Your task to perform on an android device: open sync settings in chrome Image 0: 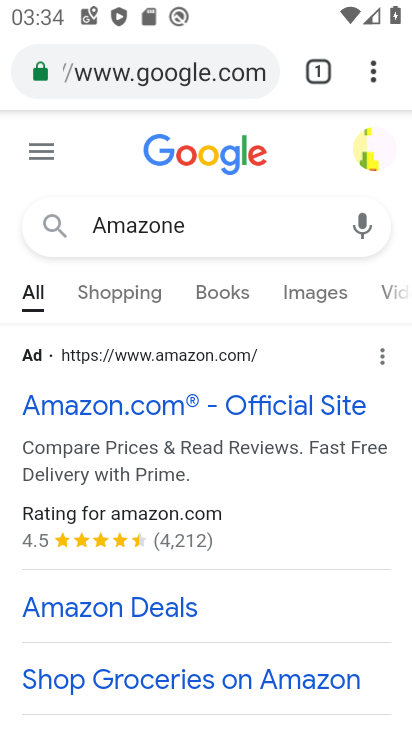
Step 0: press back button
Your task to perform on an android device: open sync settings in chrome Image 1: 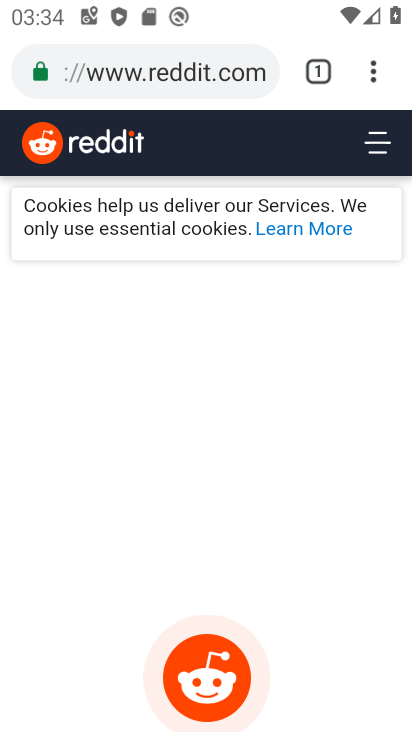
Step 1: press back button
Your task to perform on an android device: open sync settings in chrome Image 2: 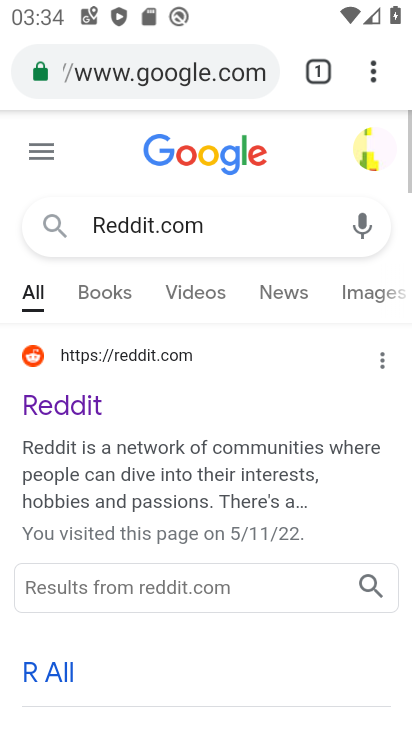
Step 2: press back button
Your task to perform on an android device: open sync settings in chrome Image 3: 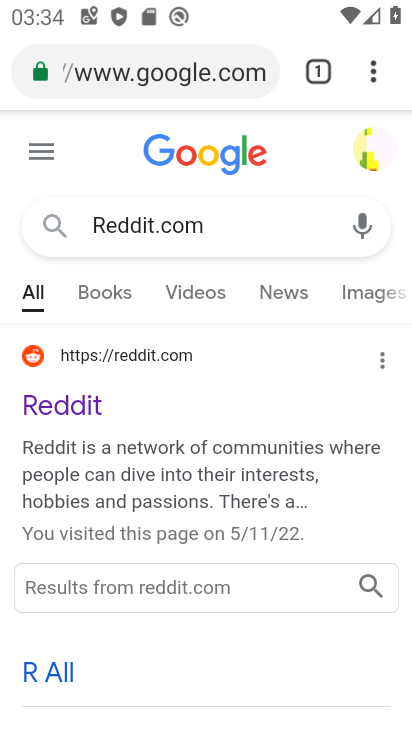
Step 3: press back button
Your task to perform on an android device: open sync settings in chrome Image 4: 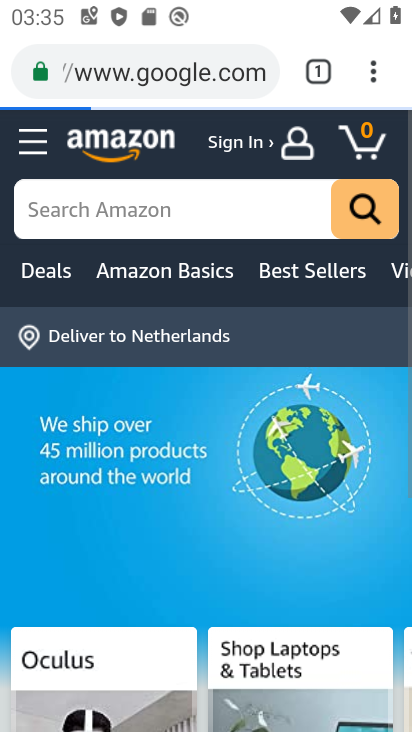
Step 4: press back button
Your task to perform on an android device: open sync settings in chrome Image 5: 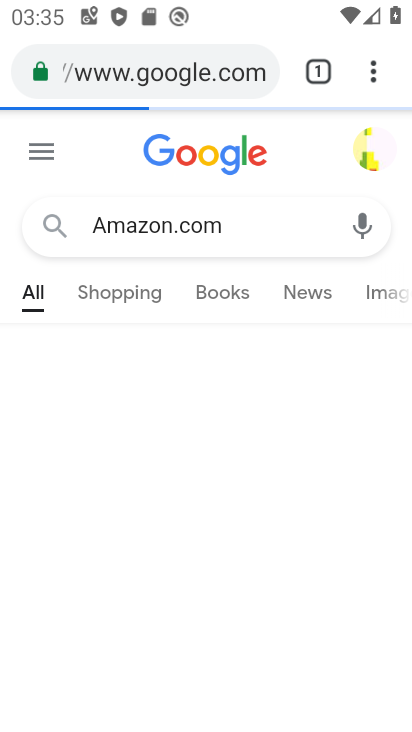
Step 5: press back button
Your task to perform on an android device: open sync settings in chrome Image 6: 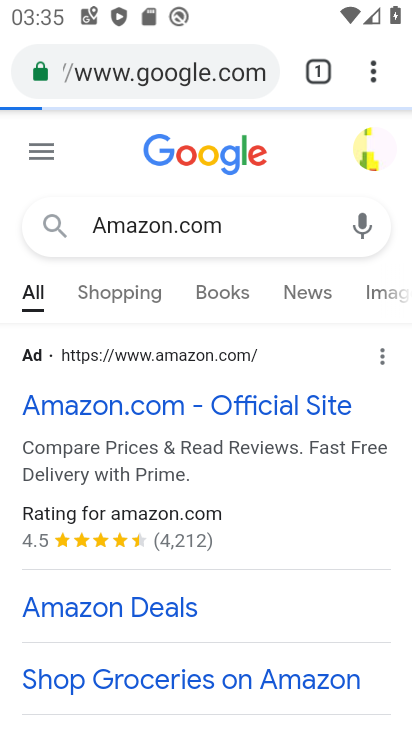
Step 6: press back button
Your task to perform on an android device: open sync settings in chrome Image 7: 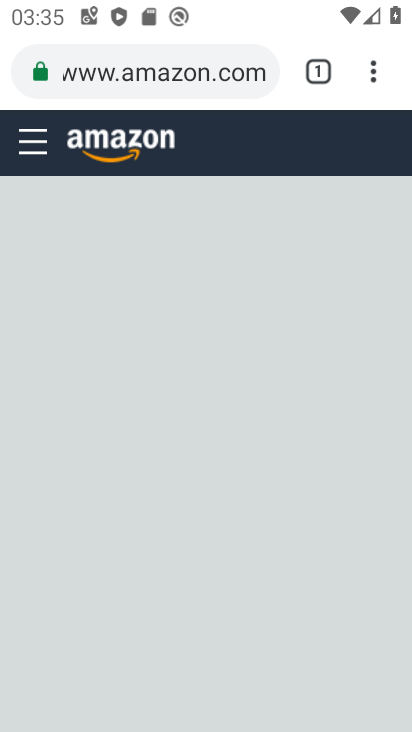
Step 7: press back button
Your task to perform on an android device: open sync settings in chrome Image 8: 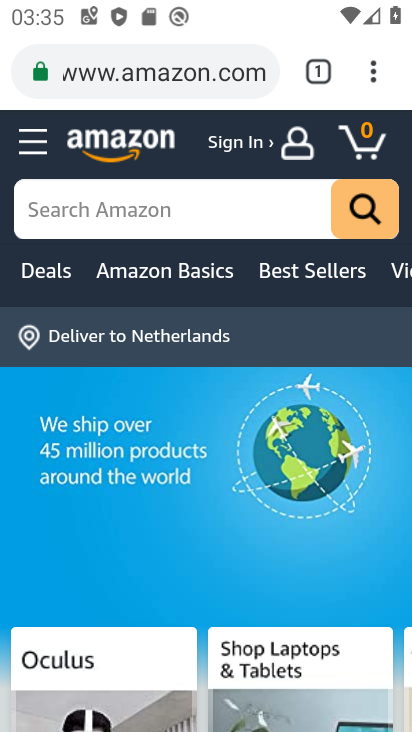
Step 8: press back button
Your task to perform on an android device: open sync settings in chrome Image 9: 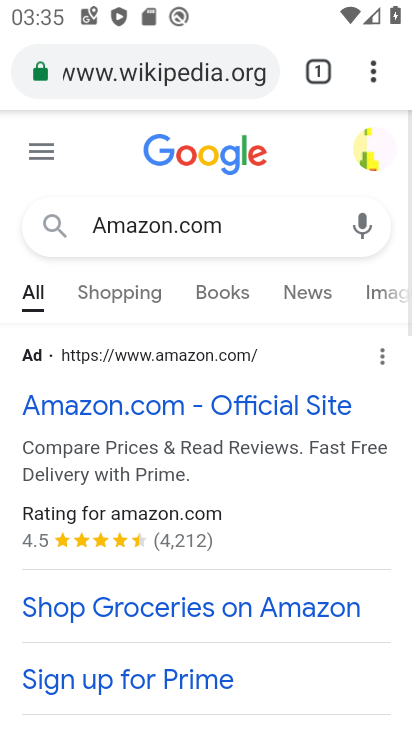
Step 9: press back button
Your task to perform on an android device: open sync settings in chrome Image 10: 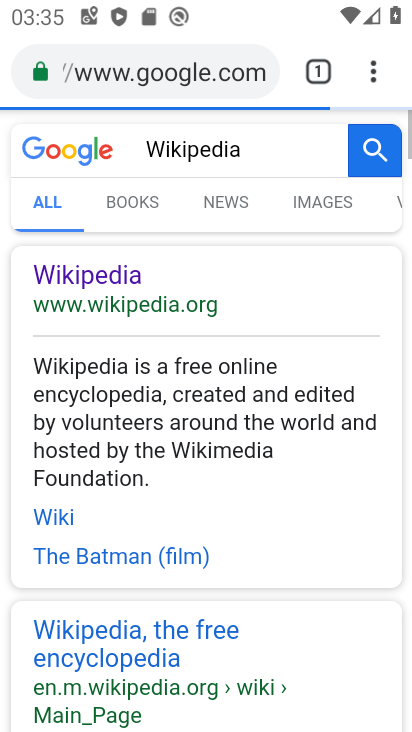
Step 10: press back button
Your task to perform on an android device: open sync settings in chrome Image 11: 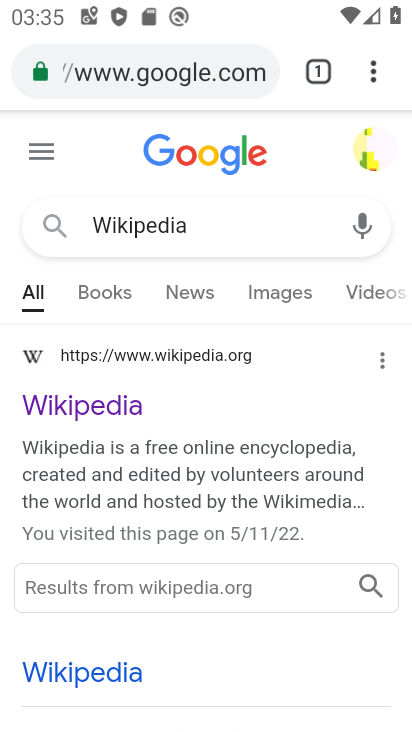
Step 11: press back button
Your task to perform on an android device: open sync settings in chrome Image 12: 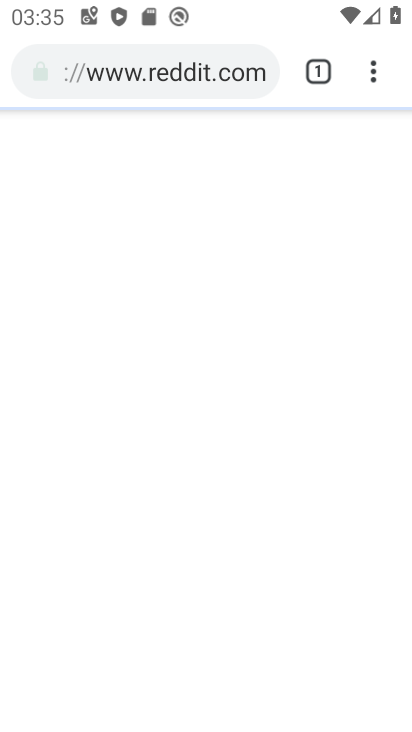
Step 12: press back button
Your task to perform on an android device: open sync settings in chrome Image 13: 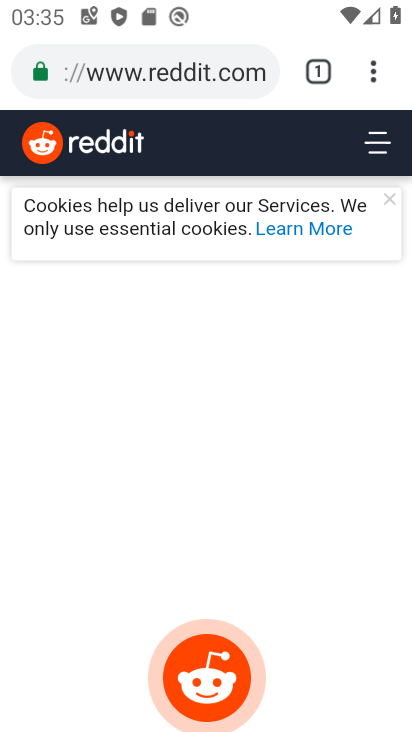
Step 13: press back button
Your task to perform on an android device: open sync settings in chrome Image 14: 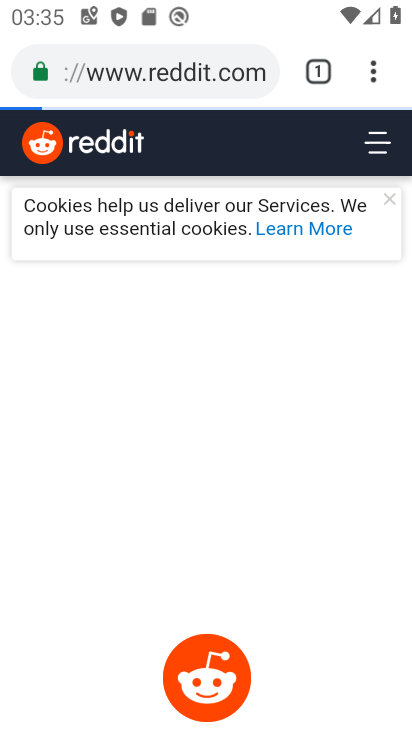
Step 14: press back button
Your task to perform on an android device: open sync settings in chrome Image 15: 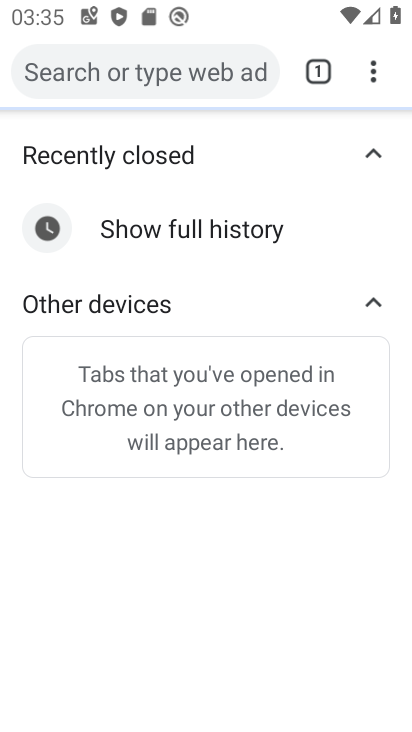
Step 15: press back button
Your task to perform on an android device: open sync settings in chrome Image 16: 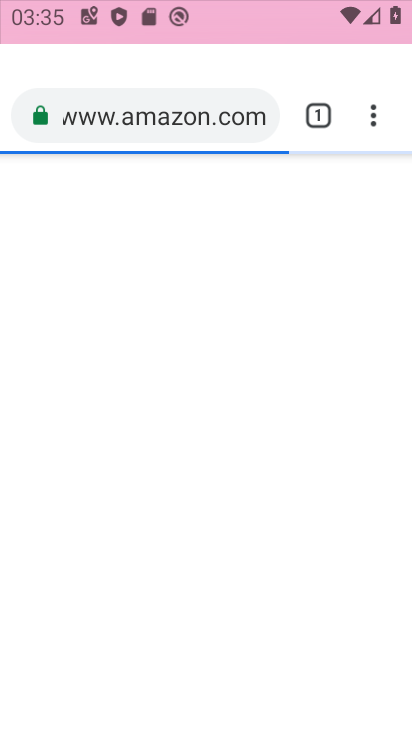
Step 16: press back button
Your task to perform on an android device: open sync settings in chrome Image 17: 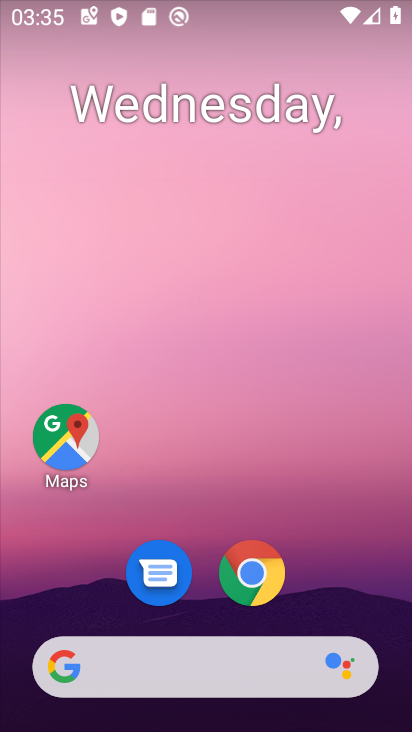
Step 17: click (253, 575)
Your task to perform on an android device: open sync settings in chrome Image 18: 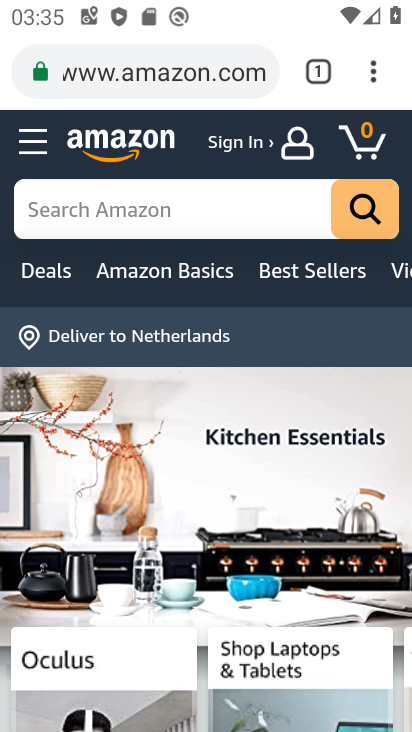
Step 18: click (373, 68)
Your task to perform on an android device: open sync settings in chrome Image 19: 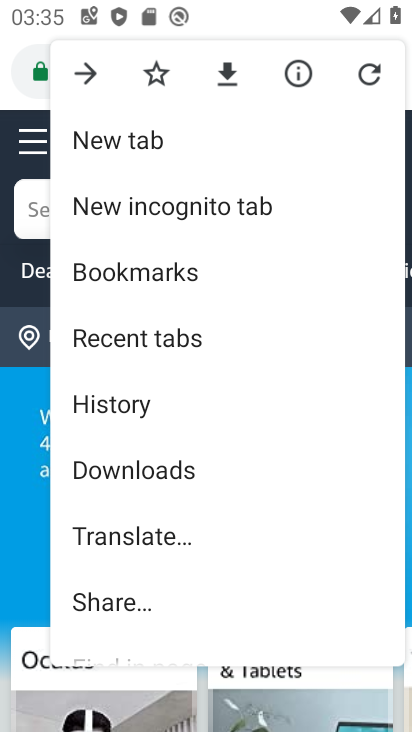
Step 19: drag from (174, 565) to (239, 436)
Your task to perform on an android device: open sync settings in chrome Image 20: 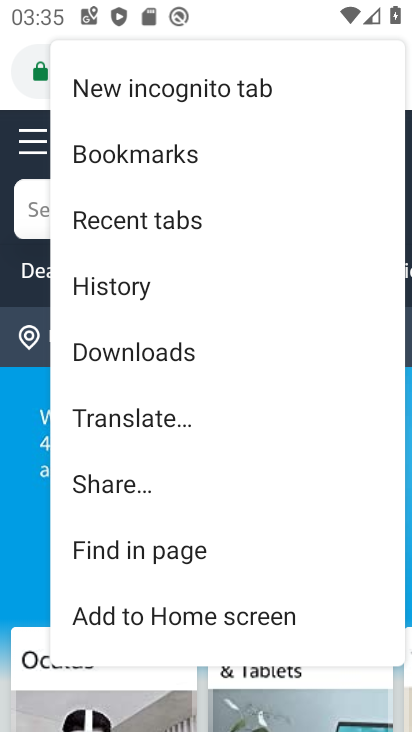
Step 20: drag from (188, 567) to (190, 422)
Your task to perform on an android device: open sync settings in chrome Image 21: 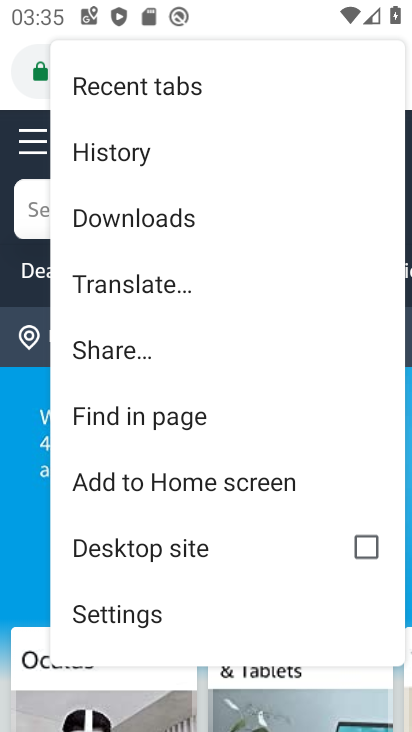
Step 21: drag from (169, 594) to (241, 395)
Your task to perform on an android device: open sync settings in chrome Image 22: 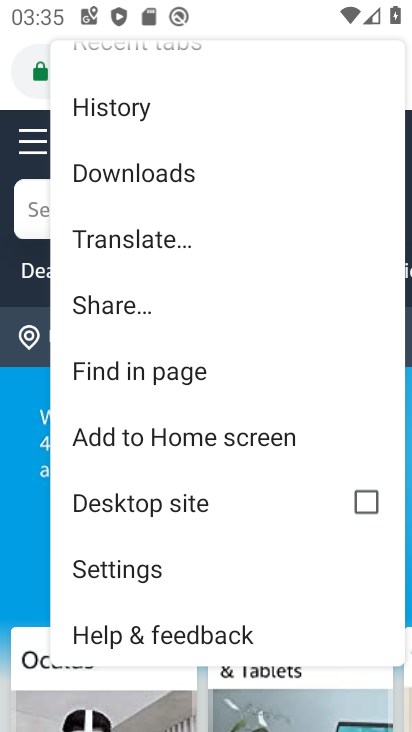
Step 22: click (139, 567)
Your task to perform on an android device: open sync settings in chrome Image 23: 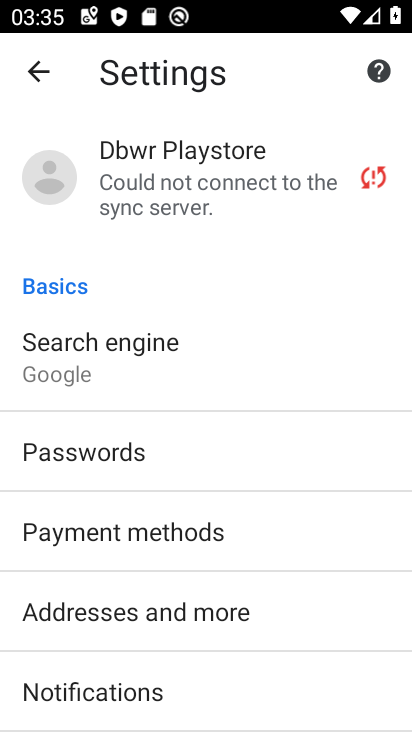
Step 23: drag from (150, 472) to (238, 336)
Your task to perform on an android device: open sync settings in chrome Image 24: 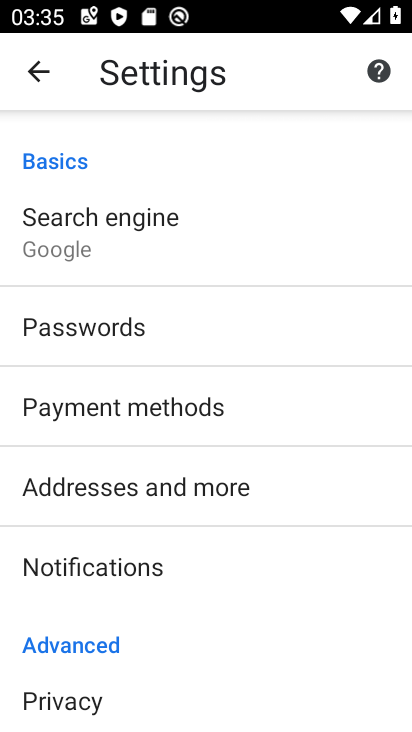
Step 24: drag from (199, 531) to (252, 407)
Your task to perform on an android device: open sync settings in chrome Image 25: 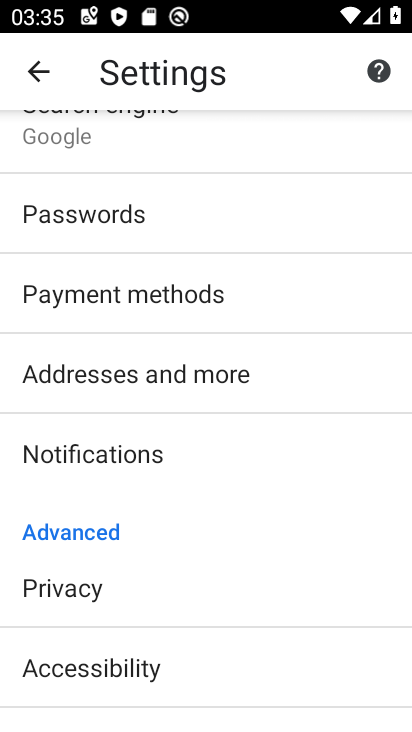
Step 25: drag from (164, 584) to (242, 432)
Your task to perform on an android device: open sync settings in chrome Image 26: 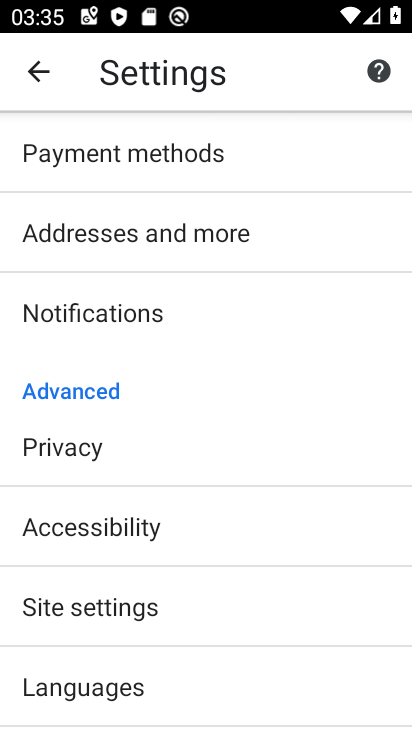
Step 26: click (135, 600)
Your task to perform on an android device: open sync settings in chrome Image 27: 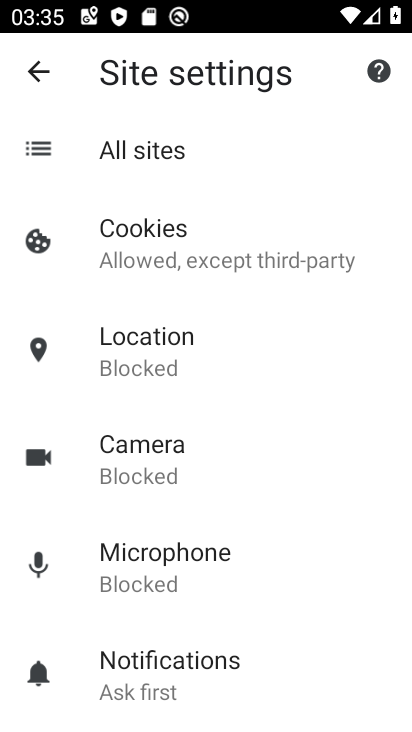
Step 27: drag from (196, 516) to (245, 424)
Your task to perform on an android device: open sync settings in chrome Image 28: 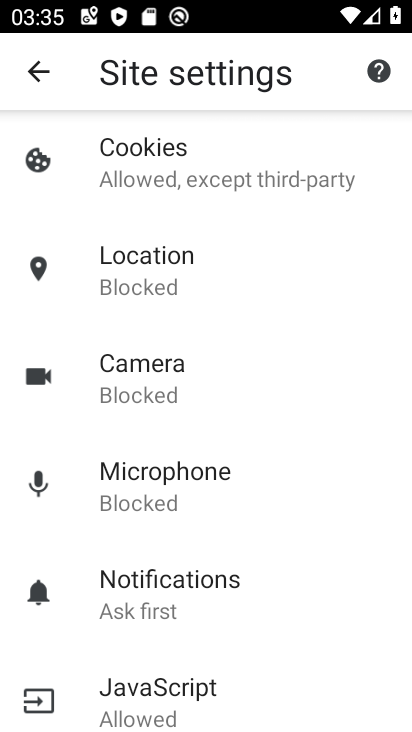
Step 28: drag from (185, 615) to (260, 499)
Your task to perform on an android device: open sync settings in chrome Image 29: 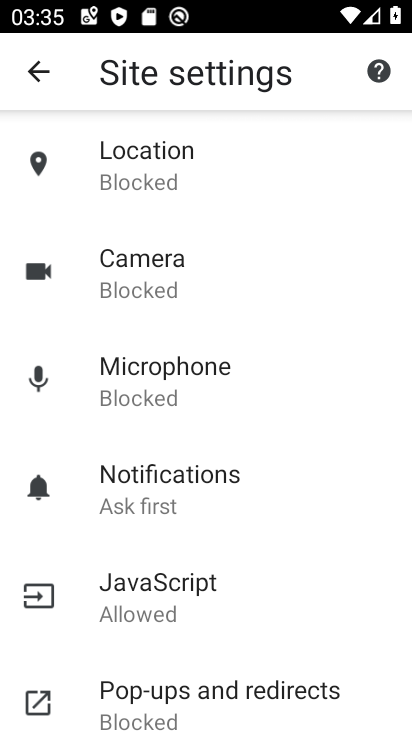
Step 29: drag from (193, 637) to (242, 508)
Your task to perform on an android device: open sync settings in chrome Image 30: 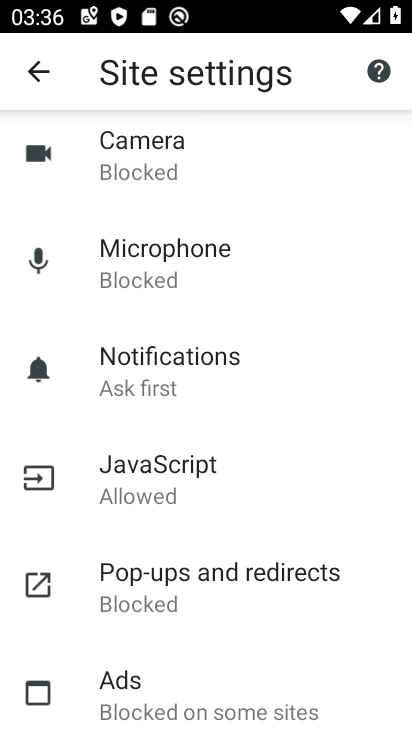
Step 30: drag from (192, 660) to (228, 517)
Your task to perform on an android device: open sync settings in chrome Image 31: 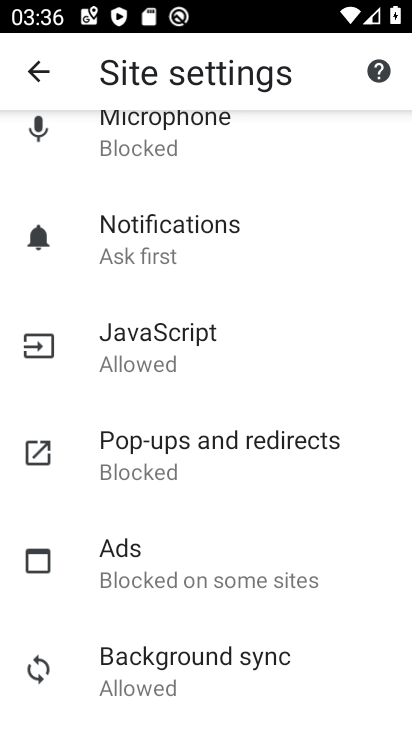
Step 31: click (195, 653)
Your task to perform on an android device: open sync settings in chrome Image 32: 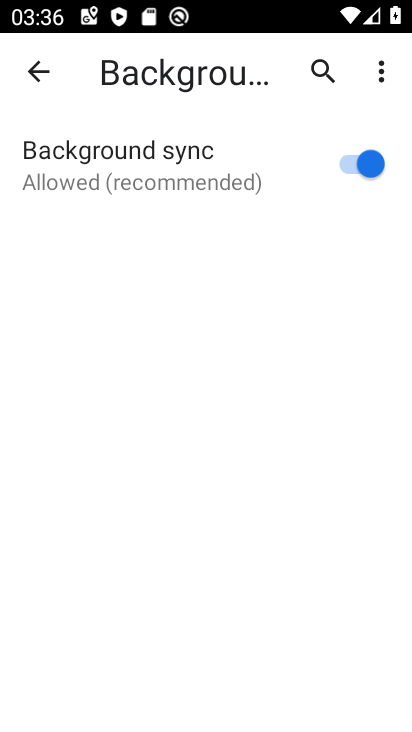
Step 32: task complete